Your task to perform on an android device: Go to Yahoo.com Image 0: 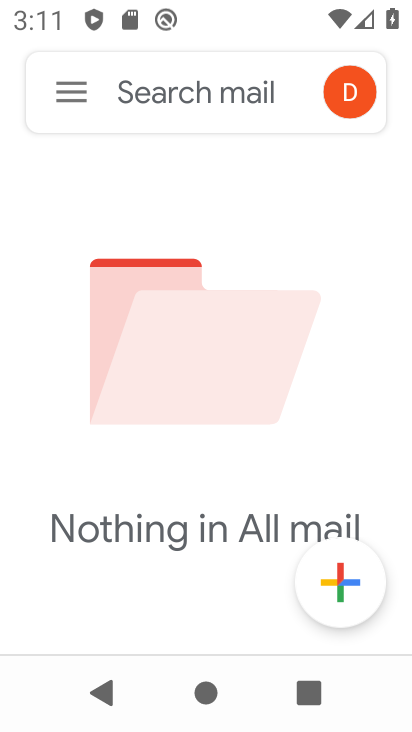
Step 0: press home button
Your task to perform on an android device: Go to Yahoo.com Image 1: 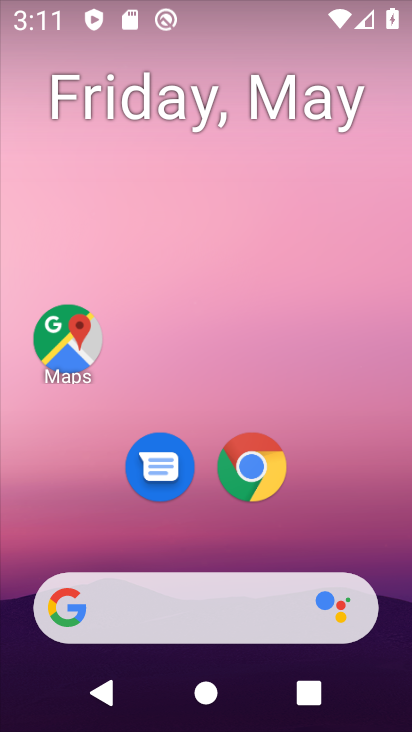
Step 1: click (262, 480)
Your task to perform on an android device: Go to Yahoo.com Image 2: 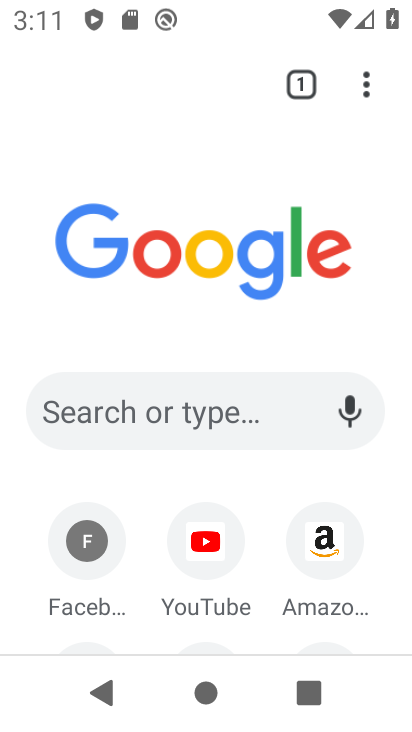
Step 2: drag from (373, 565) to (351, 171)
Your task to perform on an android device: Go to Yahoo.com Image 3: 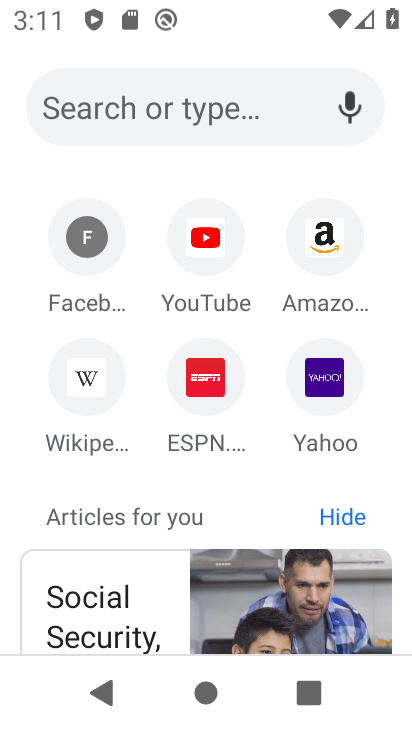
Step 3: click (325, 379)
Your task to perform on an android device: Go to Yahoo.com Image 4: 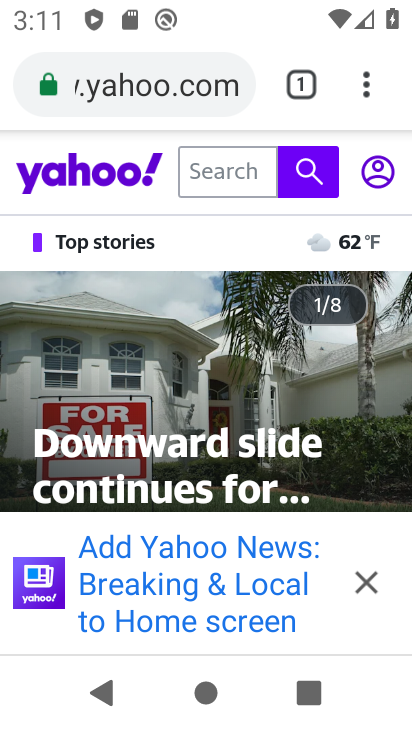
Step 4: task complete